Your task to perform on an android device: toggle notification dots Image 0: 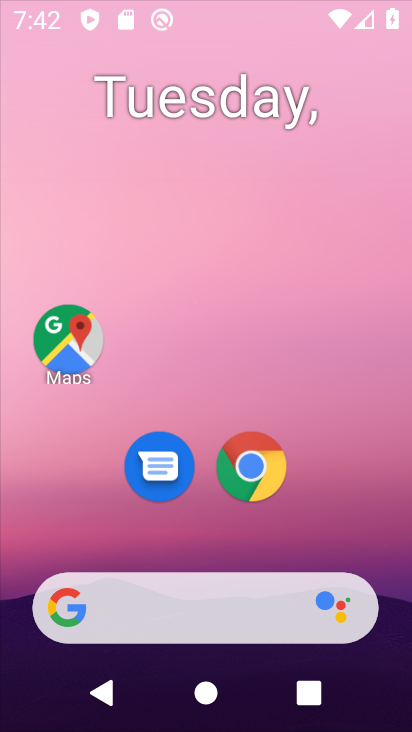
Step 0: press home button
Your task to perform on an android device: toggle notification dots Image 1: 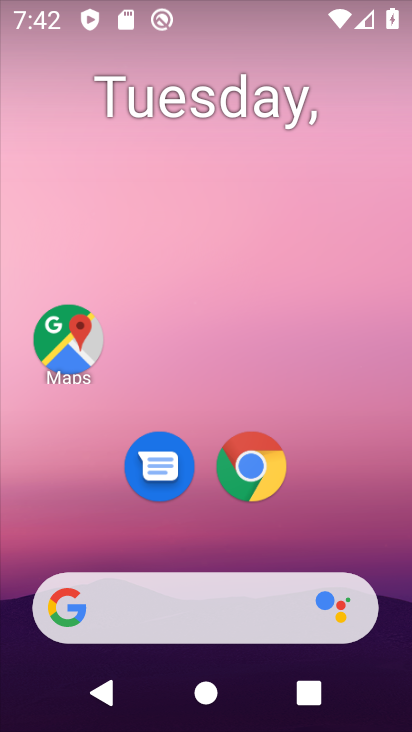
Step 1: drag from (202, 538) to (280, 39)
Your task to perform on an android device: toggle notification dots Image 2: 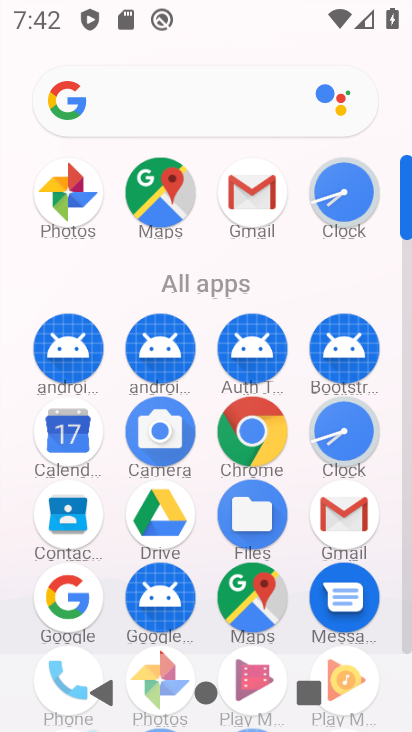
Step 2: drag from (205, 563) to (243, 136)
Your task to perform on an android device: toggle notification dots Image 3: 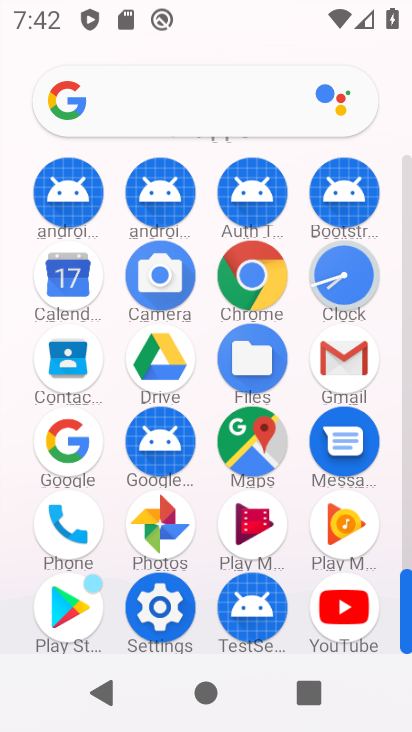
Step 3: click (159, 601)
Your task to perform on an android device: toggle notification dots Image 4: 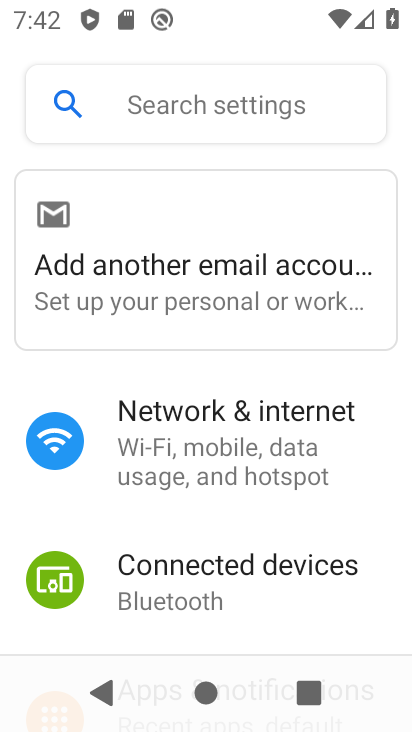
Step 4: drag from (191, 594) to (232, 173)
Your task to perform on an android device: toggle notification dots Image 5: 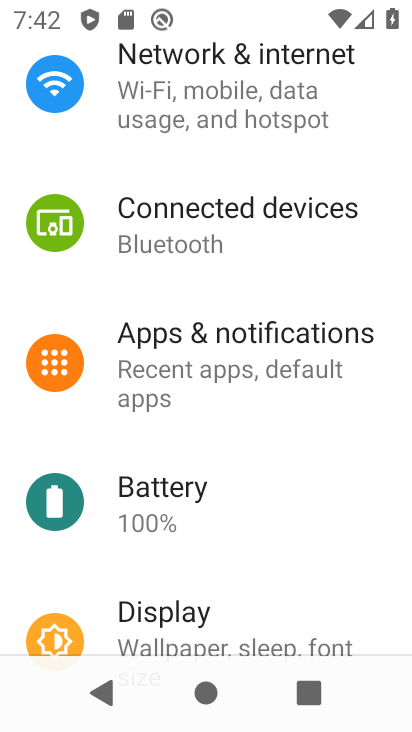
Step 5: click (192, 364)
Your task to perform on an android device: toggle notification dots Image 6: 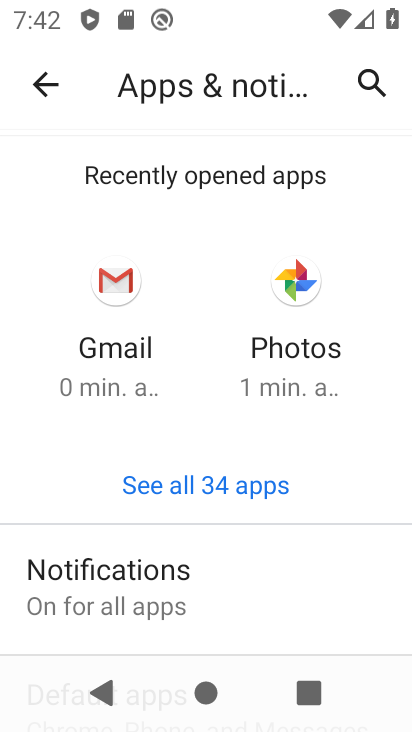
Step 6: click (211, 603)
Your task to perform on an android device: toggle notification dots Image 7: 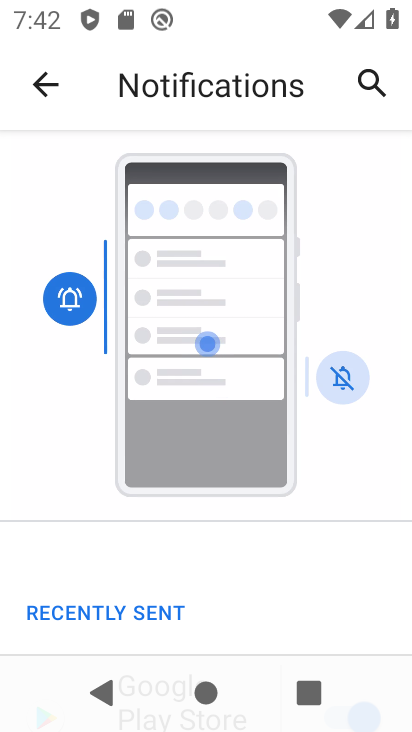
Step 7: drag from (212, 606) to (234, 224)
Your task to perform on an android device: toggle notification dots Image 8: 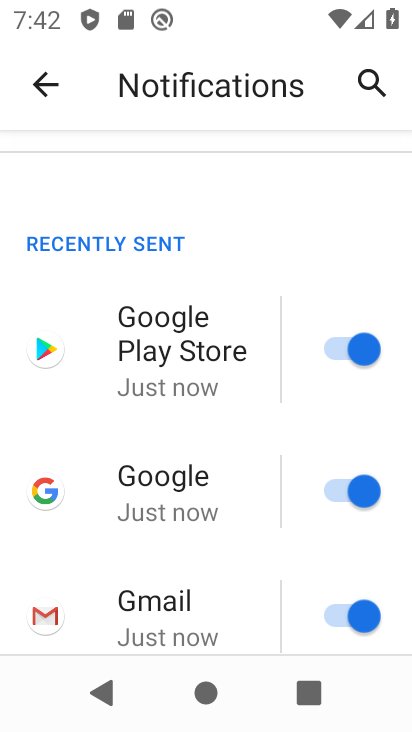
Step 8: drag from (243, 618) to (271, 233)
Your task to perform on an android device: toggle notification dots Image 9: 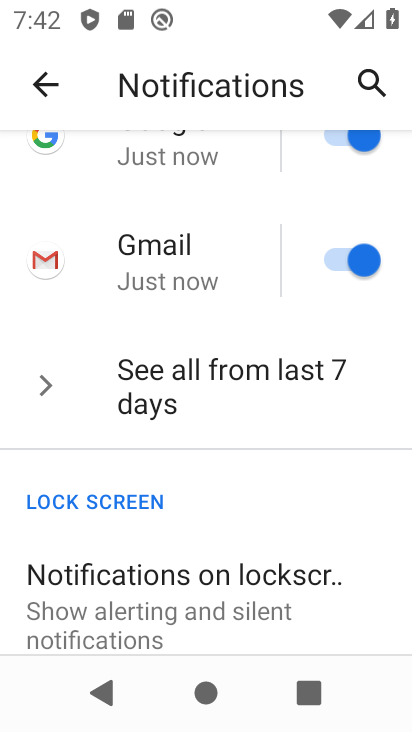
Step 9: drag from (209, 592) to (264, 129)
Your task to perform on an android device: toggle notification dots Image 10: 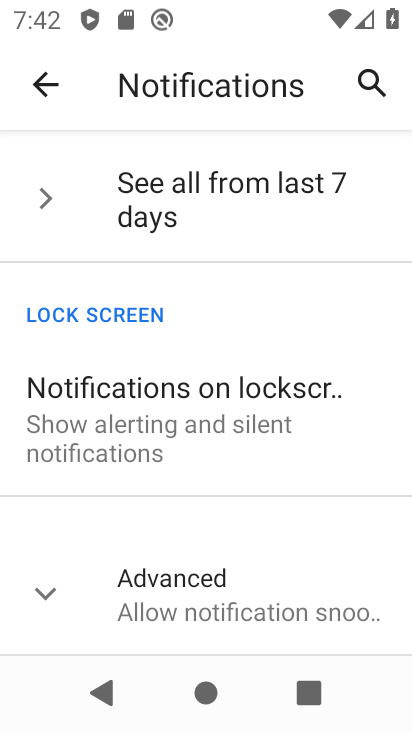
Step 10: click (44, 590)
Your task to perform on an android device: toggle notification dots Image 11: 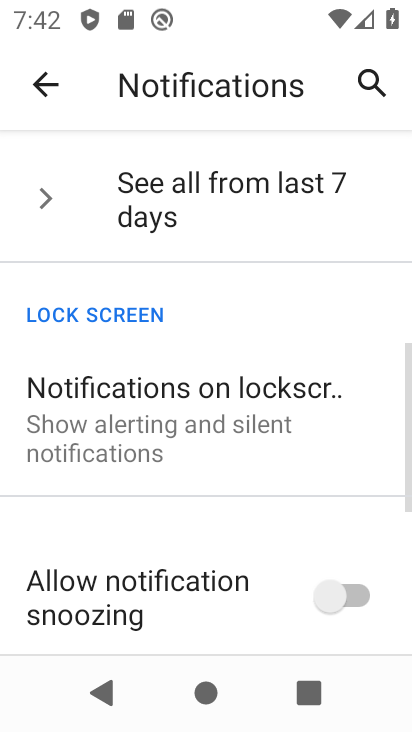
Step 11: drag from (218, 611) to (254, 78)
Your task to perform on an android device: toggle notification dots Image 12: 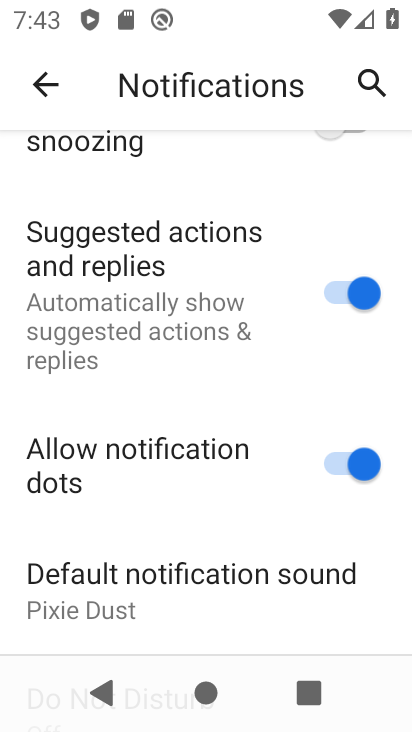
Step 12: click (348, 453)
Your task to perform on an android device: toggle notification dots Image 13: 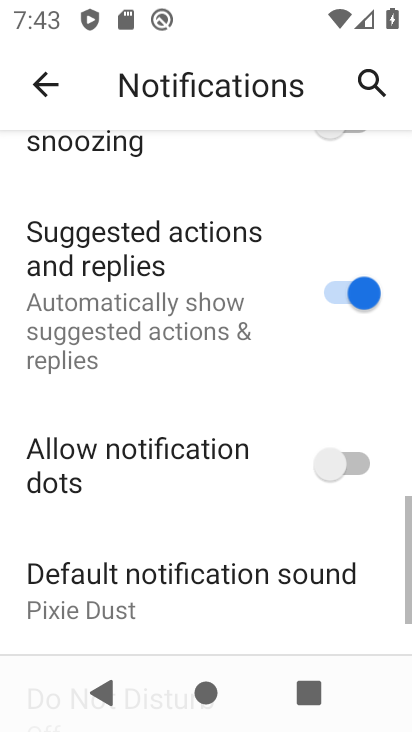
Step 13: task complete